Your task to perform on an android device: Open Google Chrome and click the shortcut for Amazon.com Image 0: 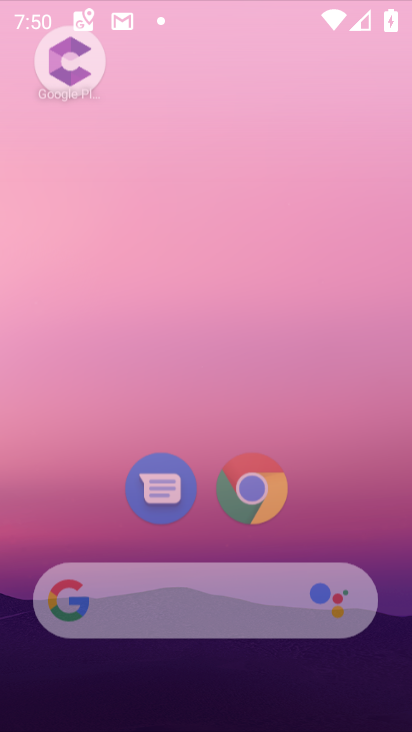
Step 0: click (155, 288)
Your task to perform on an android device: Open Google Chrome and click the shortcut for Amazon.com Image 1: 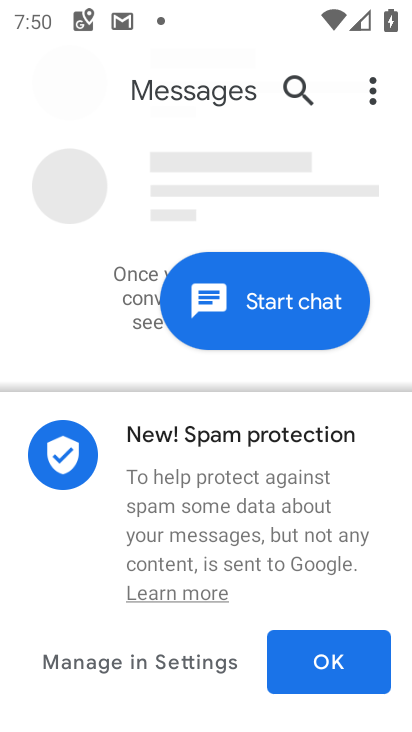
Step 1: press home button
Your task to perform on an android device: Open Google Chrome and click the shortcut for Amazon.com Image 2: 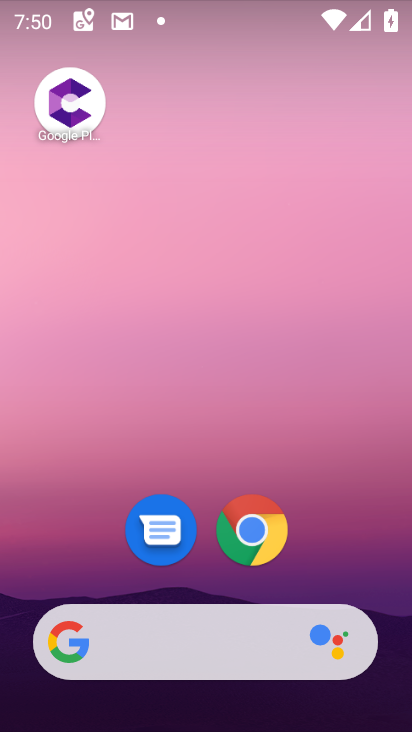
Step 2: drag from (250, 602) to (243, 328)
Your task to perform on an android device: Open Google Chrome and click the shortcut for Amazon.com Image 3: 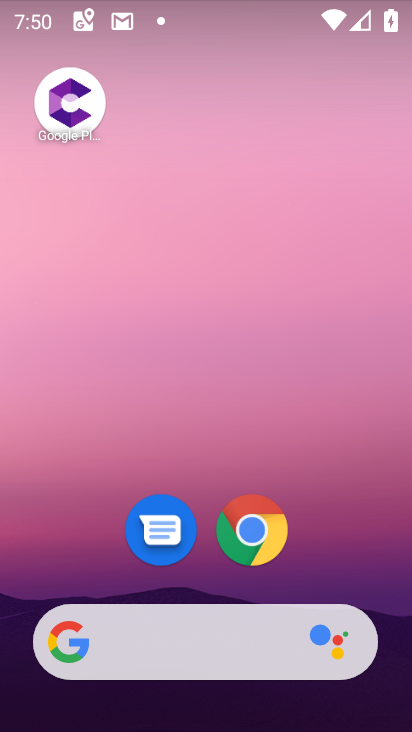
Step 3: click (242, 536)
Your task to perform on an android device: Open Google Chrome and click the shortcut for Amazon.com Image 4: 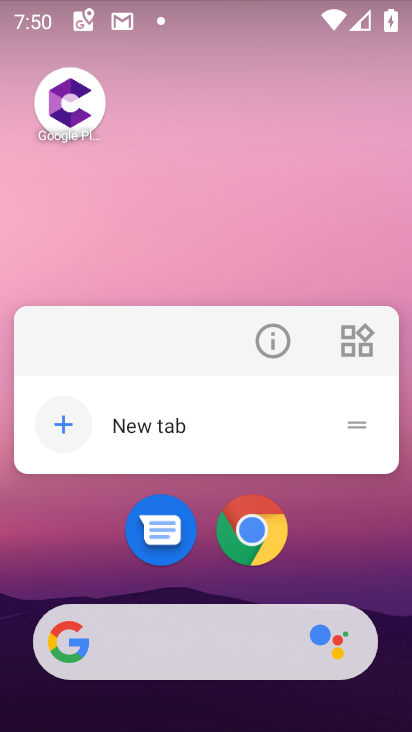
Step 4: click (264, 548)
Your task to perform on an android device: Open Google Chrome and click the shortcut for Amazon.com Image 5: 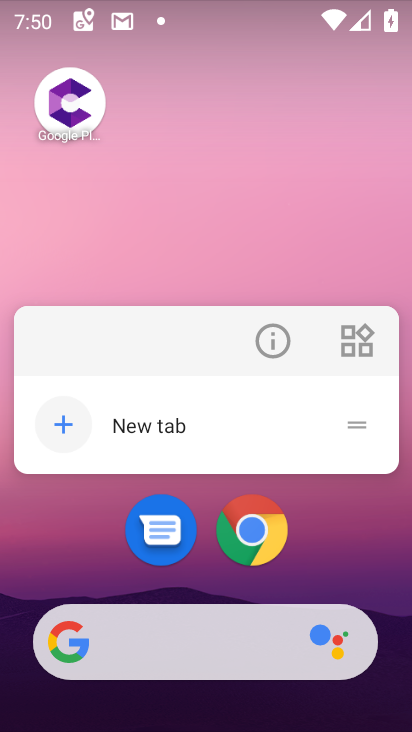
Step 5: click (255, 534)
Your task to perform on an android device: Open Google Chrome and click the shortcut for Amazon.com Image 6: 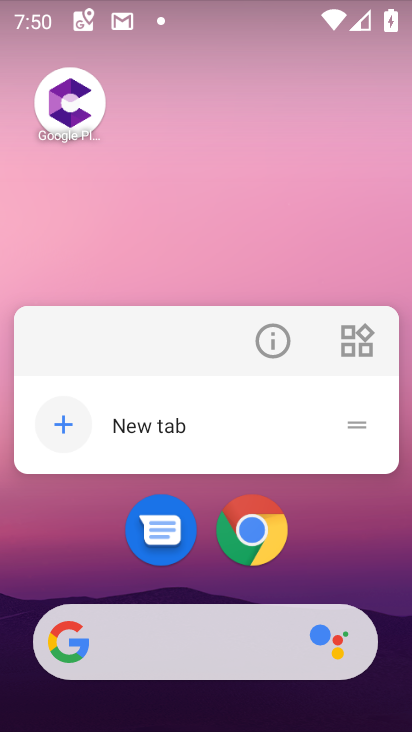
Step 6: click (257, 544)
Your task to perform on an android device: Open Google Chrome and click the shortcut for Amazon.com Image 7: 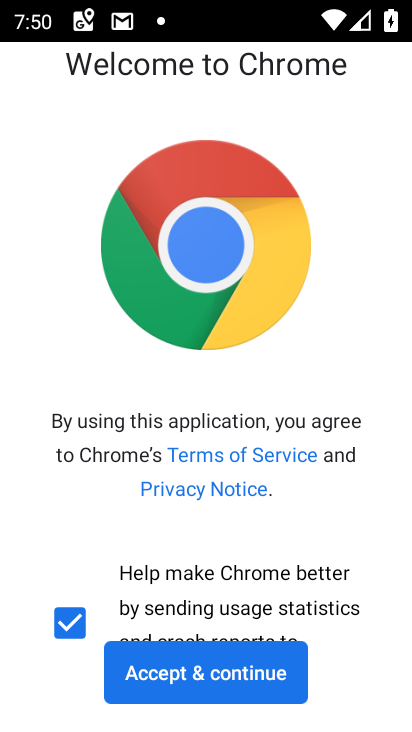
Step 7: click (178, 675)
Your task to perform on an android device: Open Google Chrome and click the shortcut for Amazon.com Image 8: 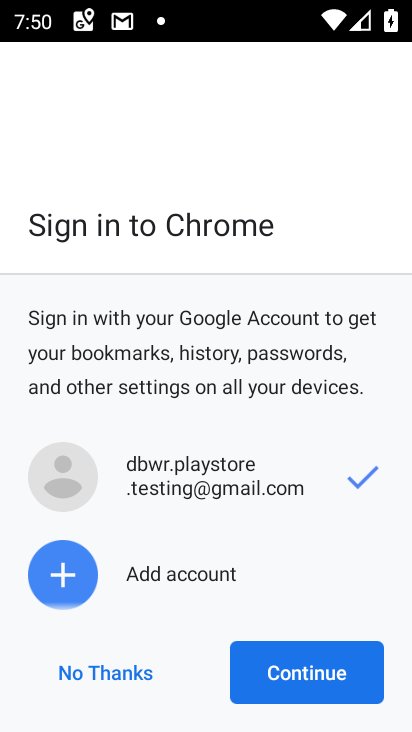
Step 8: click (277, 675)
Your task to perform on an android device: Open Google Chrome and click the shortcut for Amazon.com Image 9: 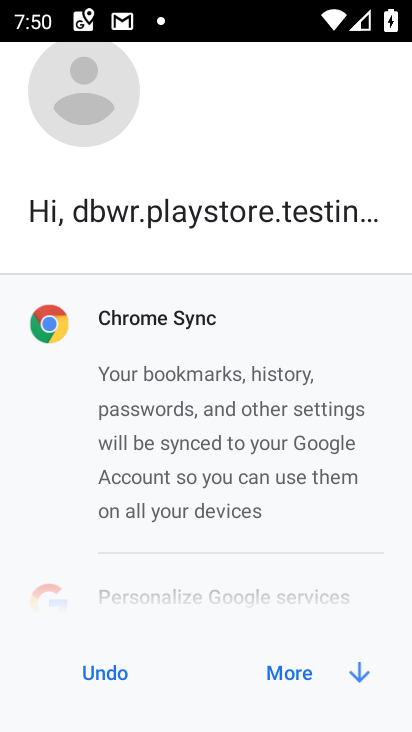
Step 9: click (277, 675)
Your task to perform on an android device: Open Google Chrome and click the shortcut for Amazon.com Image 10: 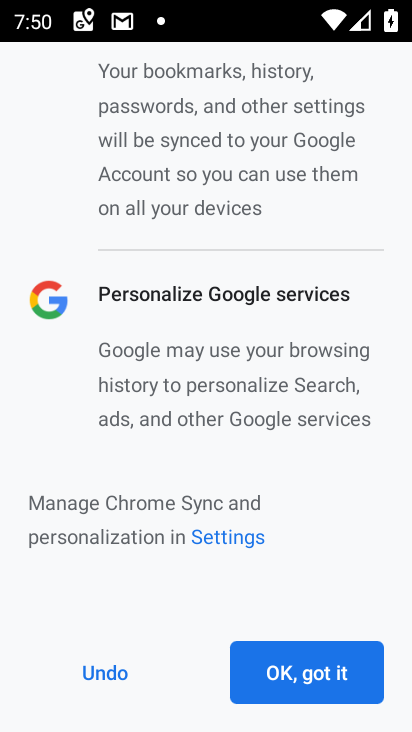
Step 10: click (277, 675)
Your task to perform on an android device: Open Google Chrome and click the shortcut for Amazon.com Image 11: 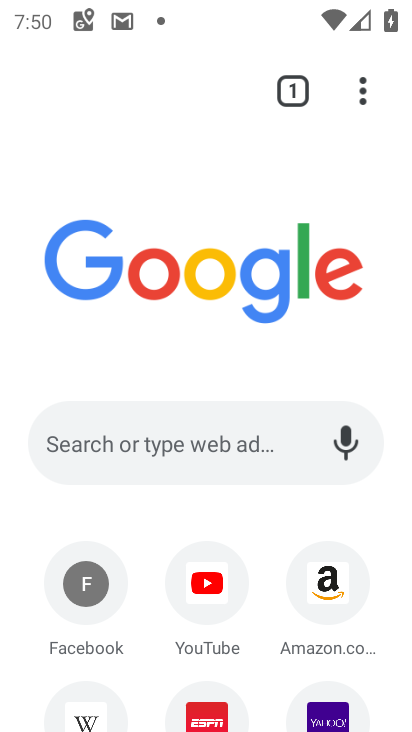
Step 11: click (326, 584)
Your task to perform on an android device: Open Google Chrome and click the shortcut for Amazon.com Image 12: 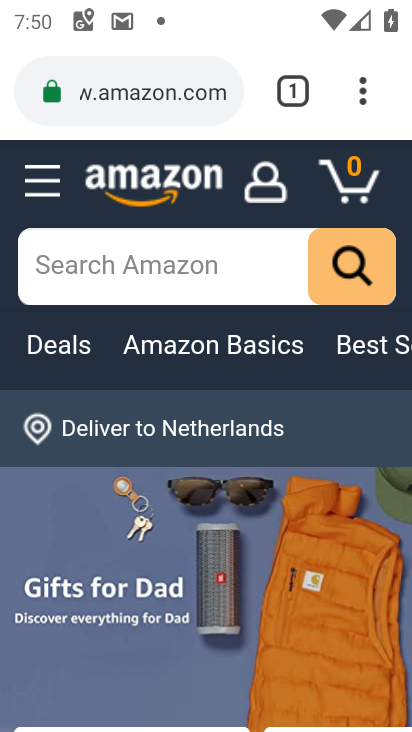
Step 12: task complete